Your task to perform on an android device: What's on my calendar today? Image 0: 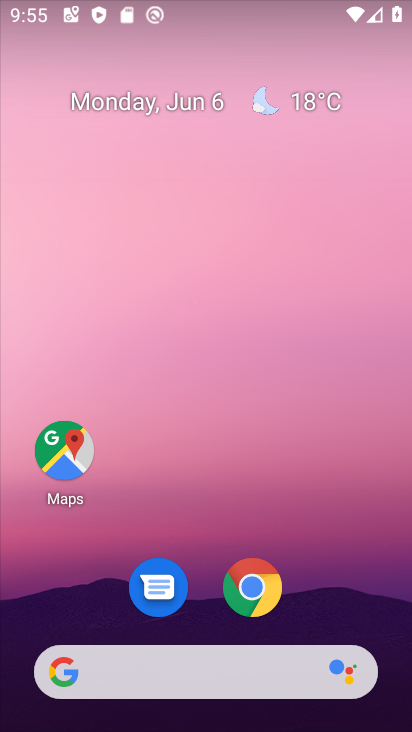
Step 0: drag from (293, 555) to (232, 33)
Your task to perform on an android device: What's on my calendar today? Image 1: 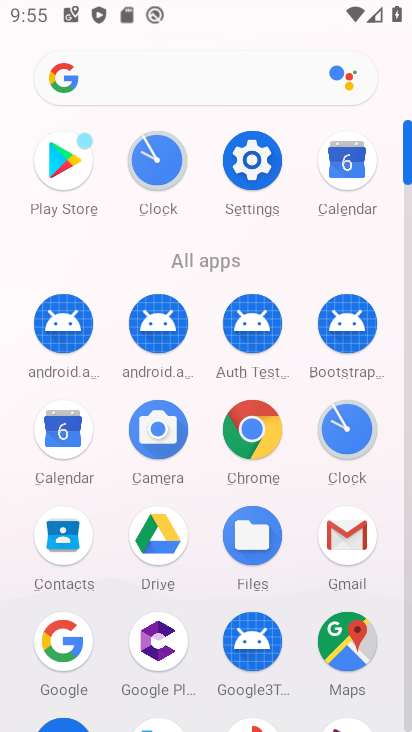
Step 1: click (355, 163)
Your task to perform on an android device: What's on my calendar today? Image 2: 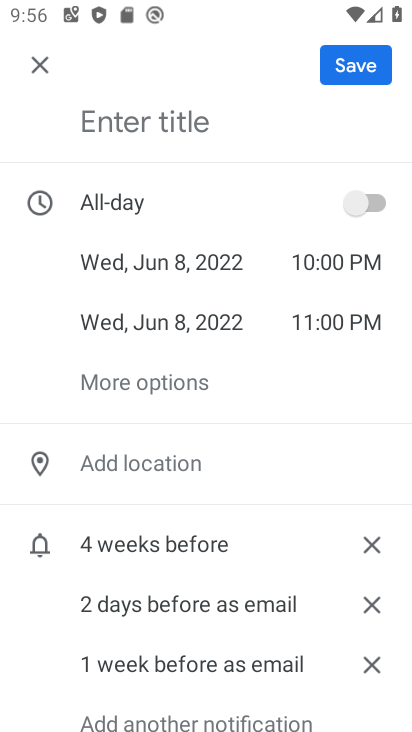
Step 2: click (37, 68)
Your task to perform on an android device: What's on my calendar today? Image 3: 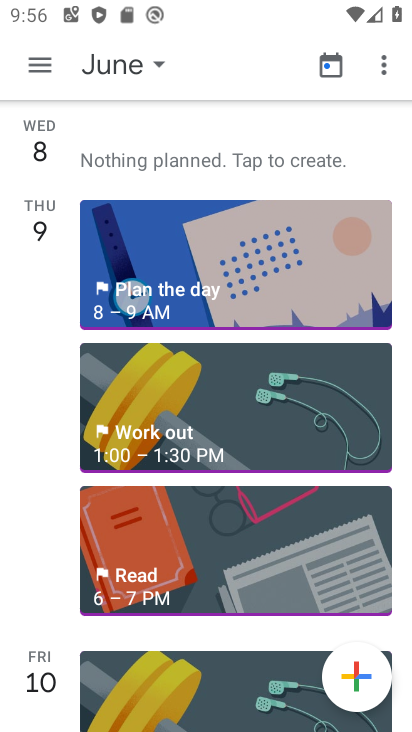
Step 3: task complete